Your task to perform on an android device: Go to internet settings Image 0: 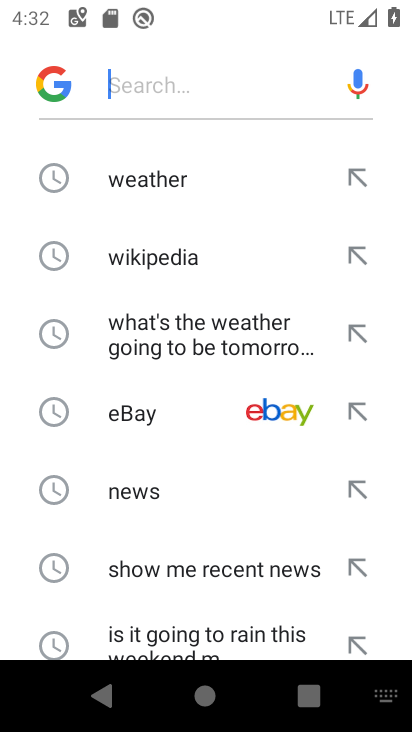
Step 0: press back button
Your task to perform on an android device: Go to internet settings Image 1: 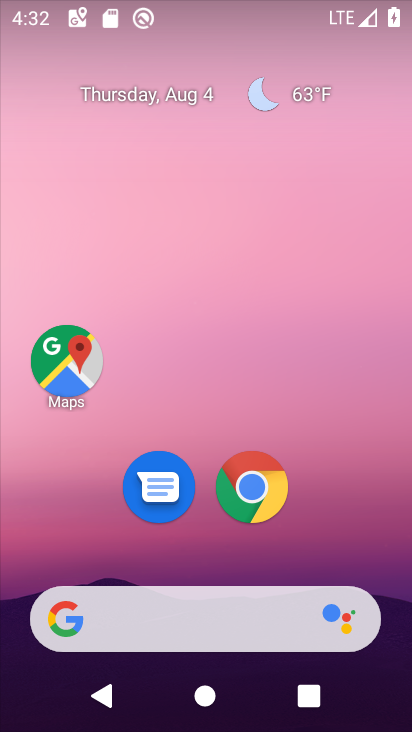
Step 1: drag from (152, 591) to (355, 0)
Your task to perform on an android device: Go to internet settings Image 2: 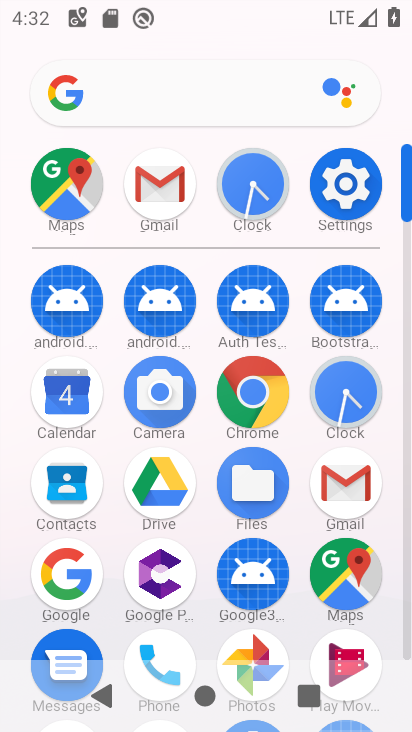
Step 2: click (351, 173)
Your task to perform on an android device: Go to internet settings Image 3: 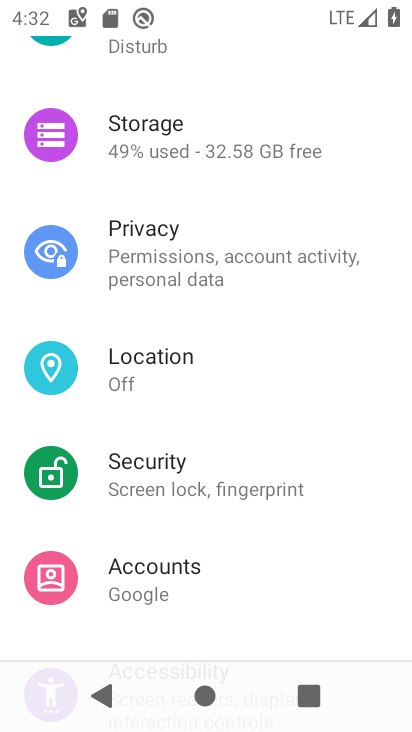
Step 3: drag from (295, 164) to (202, 730)
Your task to perform on an android device: Go to internet settings Image 4: 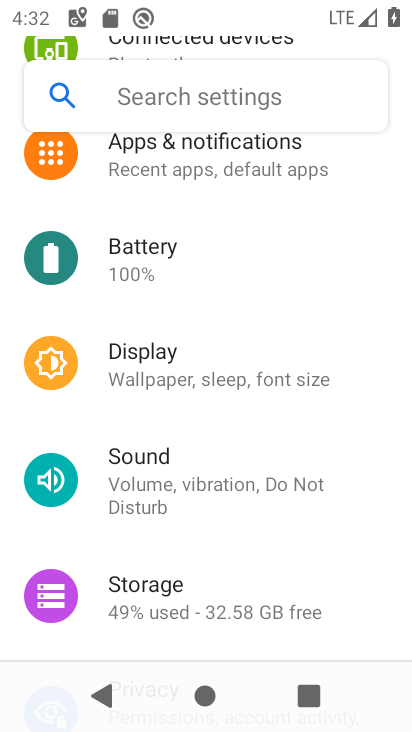
Step 4: drag from (256, 194) to (195, 730)
Your task to perform on an android device: Go to internet settings Image 5: 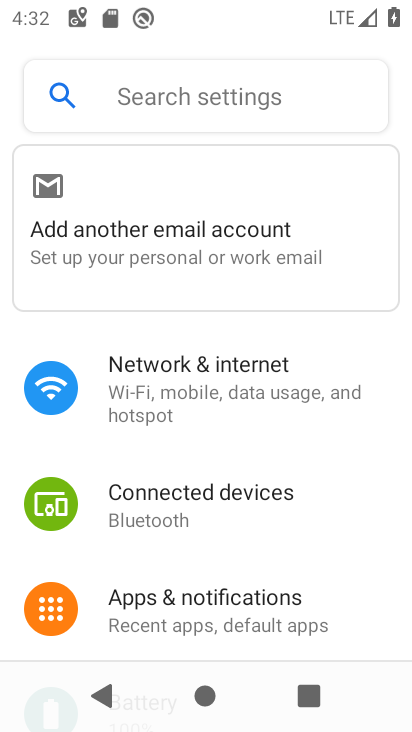
Step 5: click (193, 378)
Your task to perform on an android device: Go to internet settings Image 6: 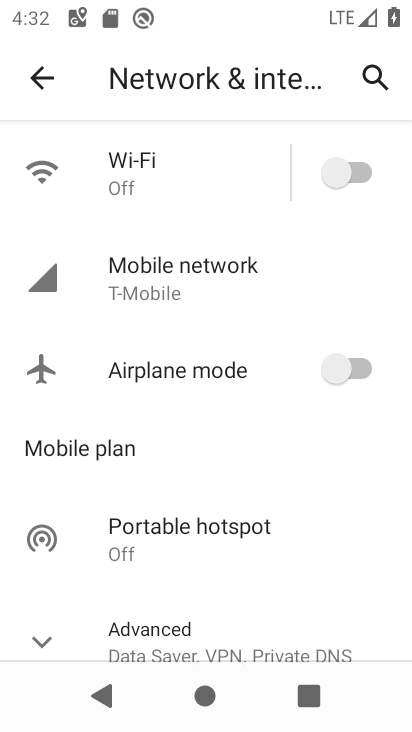
Step 6: task complete